Your task to perform on an android device: open a bookmark in the chrome app Image 0: 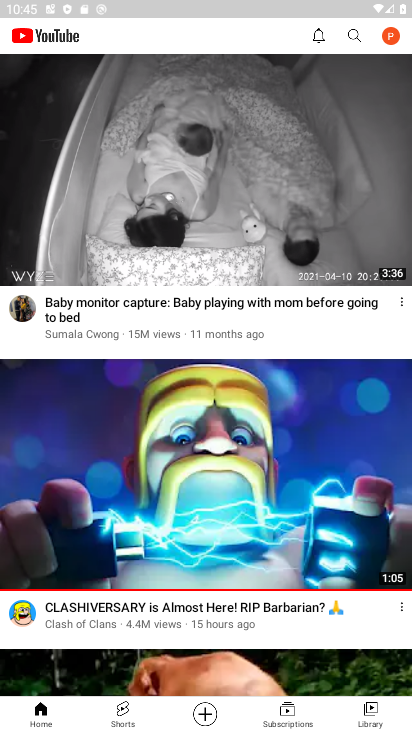
Step 0: press home button
Your task to perform on an android device: open a bookmark in the chrome app Image 1: 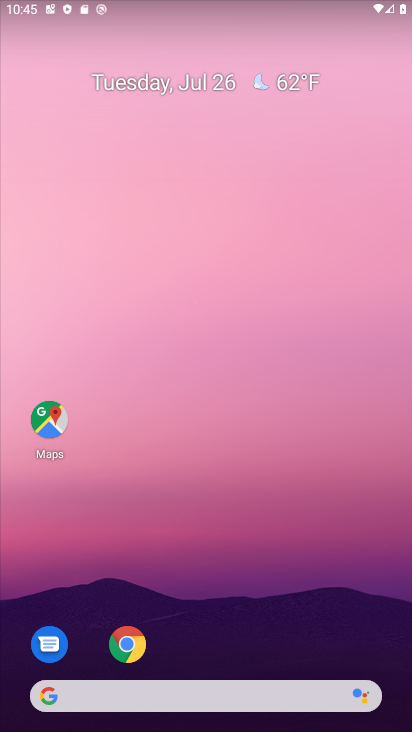
Step 1: click (128, 649)
Your task to perform on an android device: open a bookmark in the chrome app Image 2: 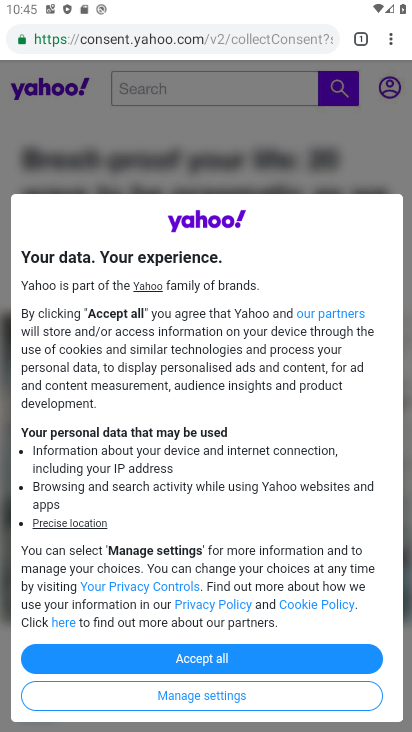
Step 2: click (388, 36)
Your task to perform on an android device: open a bookmark in the chrome app Image 3: 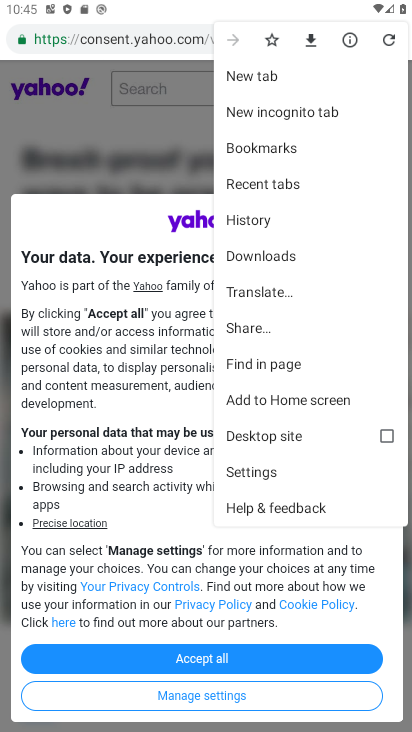
Step 3: click (267, 145)
Your task to perform on an android device: open a bookmark in the chrome app Image 4: 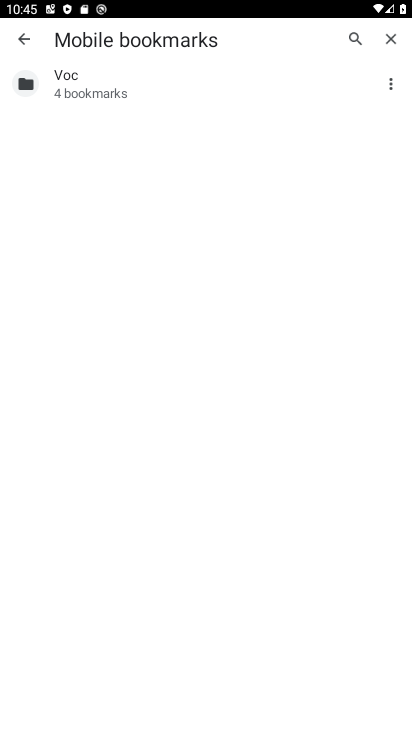
Step 4: click (119, 84)
Your task to perform on an android device: open a bookmark in the chrome app Image 5: 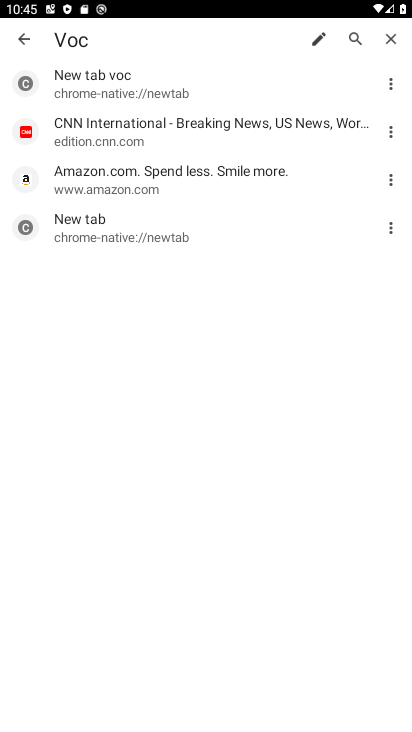
Step 5: click (126, 128)
Your task to perform on an android device: open a bookmark in the chrome app Image 6: 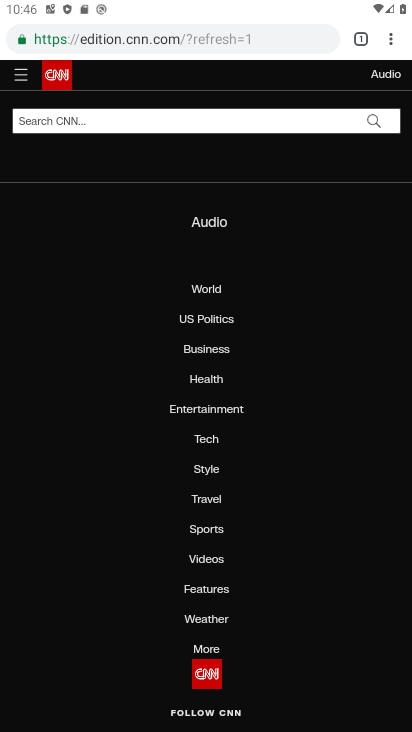
Step 6: task complete